Your task to perform on an android device: turn off translation in the chrome app Image 0: 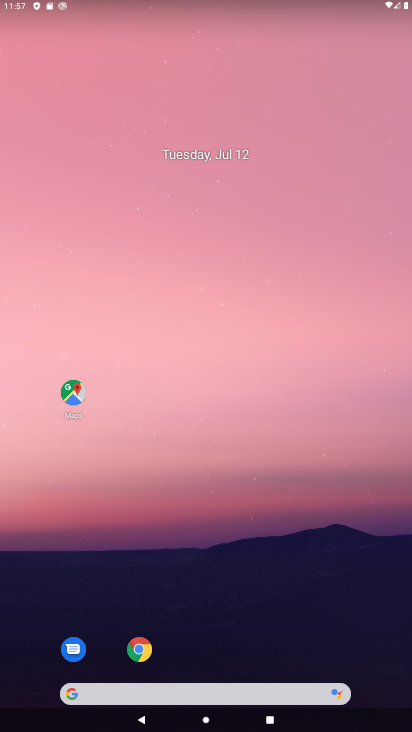
Step 0: drag from (290, 656) to (265, 569)
Your task to perform on an android device: turn off translation in the chrome app Image 1: 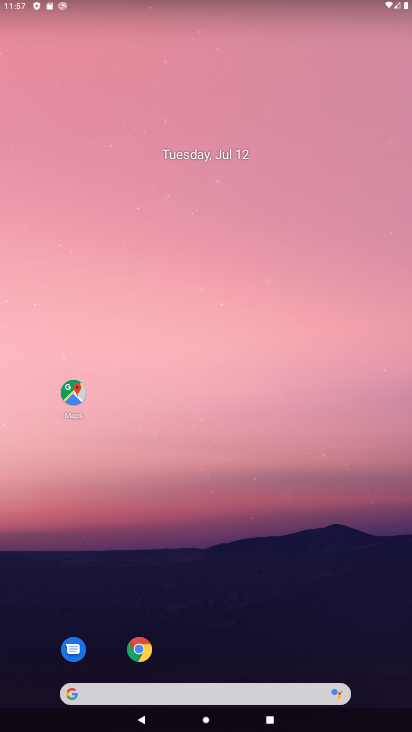
Step 1: click (145, 647)
Your task to perform on an android device: turn off translation in the chrome app Image 2: 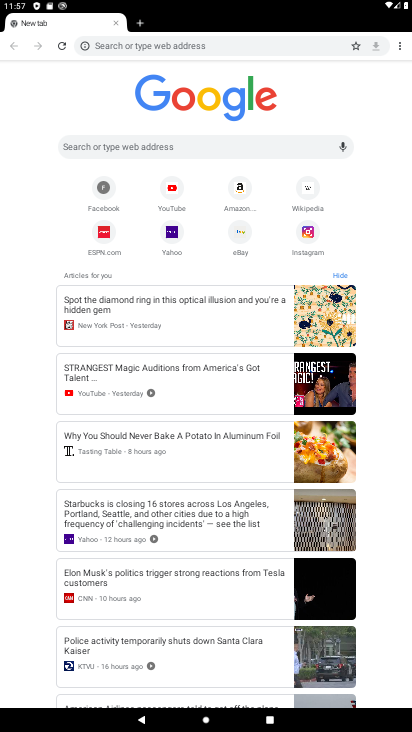
Step 2: click (401, 51)
Your task to perform on an android device: turn off translation in the chrome app Image 3: 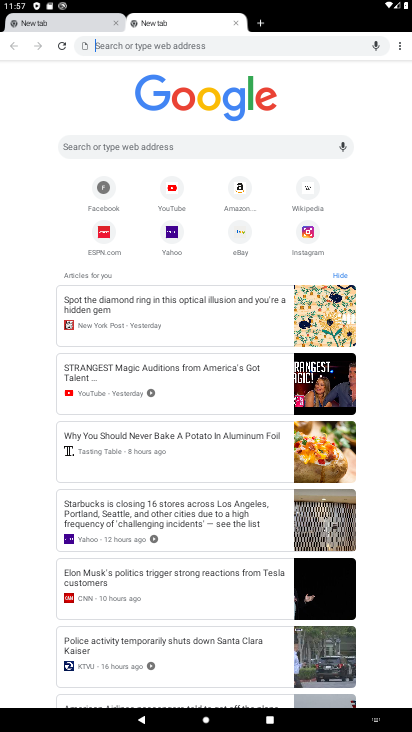
Step 3: click (398, 46)
Your task to perform on an android device: turn off translation in the chrome app Image 4: 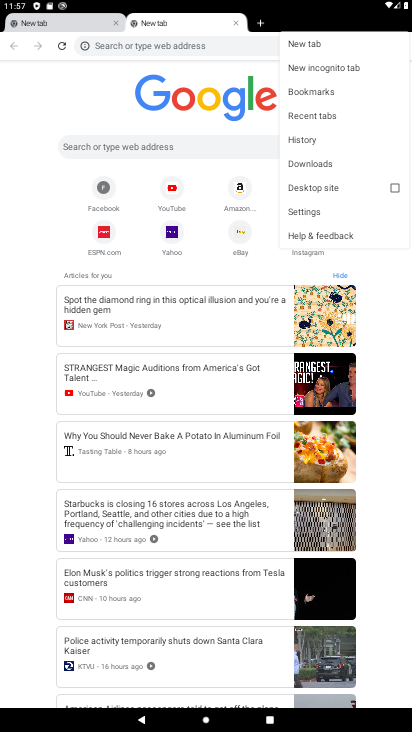
Step 4: drag from (307, 184) to (319, 130)
Your task to perform on an android device: turn off translation in the chrome app Image 5: 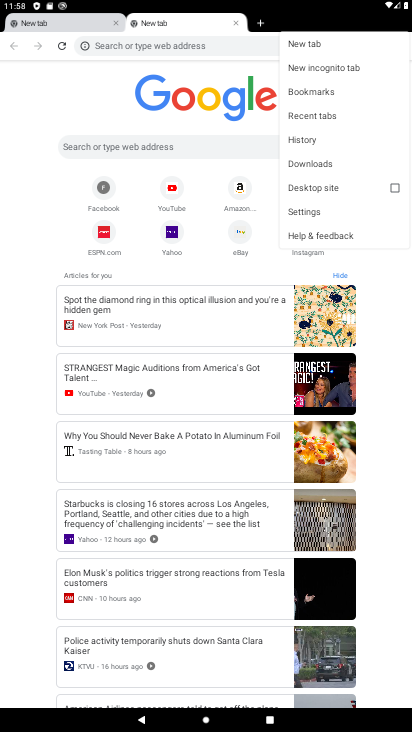
Step 5: click (306, 210)
Your task to perform on an android device: turn off translation in the chrome app Image 6: 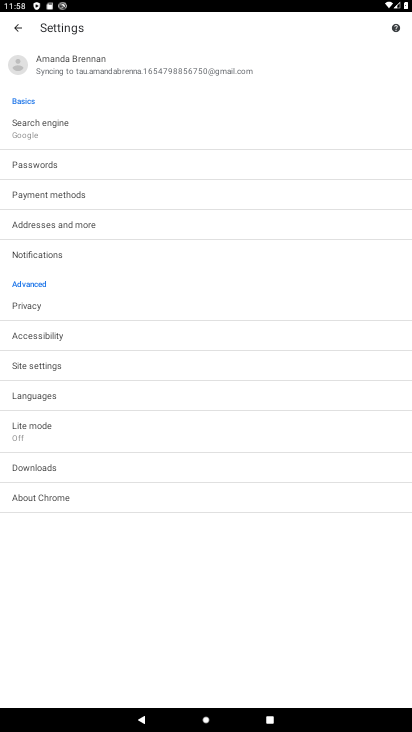
Step 6: click (46, 391)
Your task to perform on an android device: turn off translation in the chrome app Image 7: 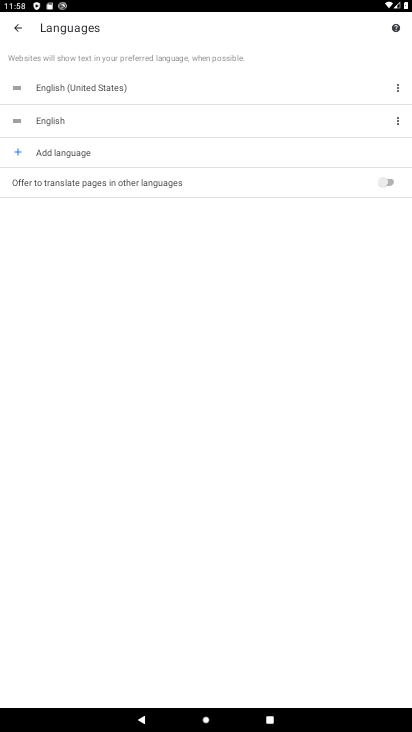
Step 7: task complete